Your task to perform on an android device: Clear the shopping cart on costco.com. Search for logitech g pro on costco.com, select the first entry, add it to the cart, then select checkout. Image 0: 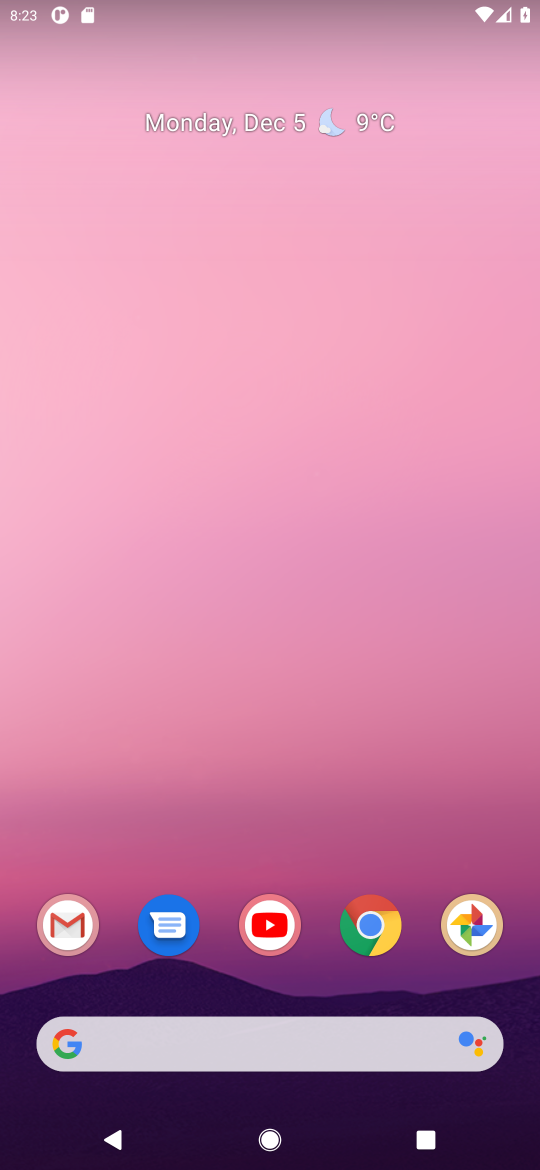
Step 0: click (368, 932)
Your task to perform on an android device: Clear the shopping cart on costco.com. Search for logitech g pro on costco.com, select the first entry, add it to the cart, then select checkout. Image 1: 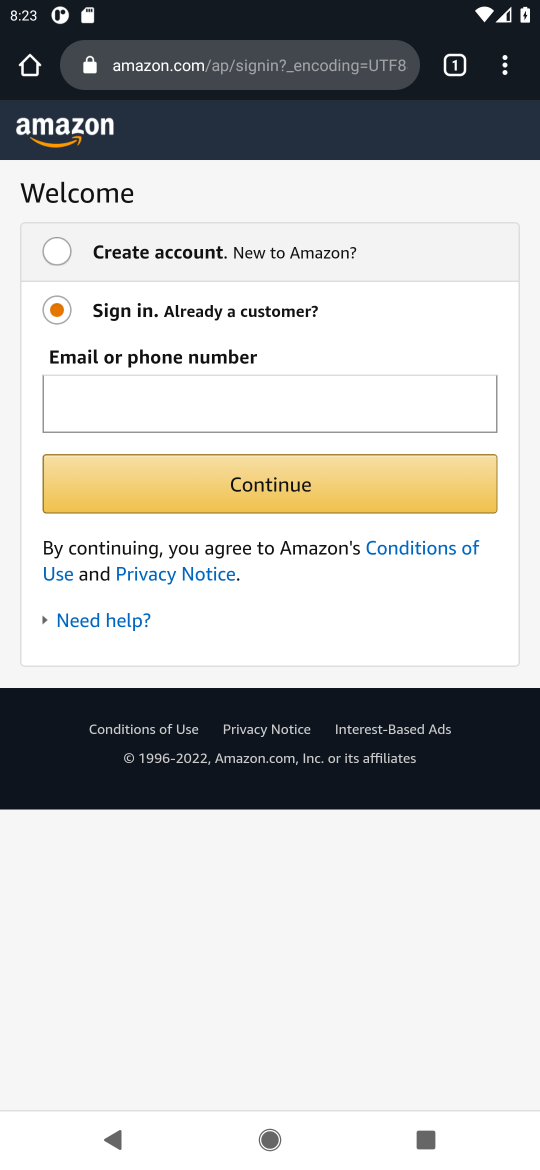
Step 1: click (207, 54)
Your task to perform on an android device: Clear the shopping cart on costco.com. Search for logitech g pro on costco.com, select the first entry, add it to the cart, then select checkout. Image 2: 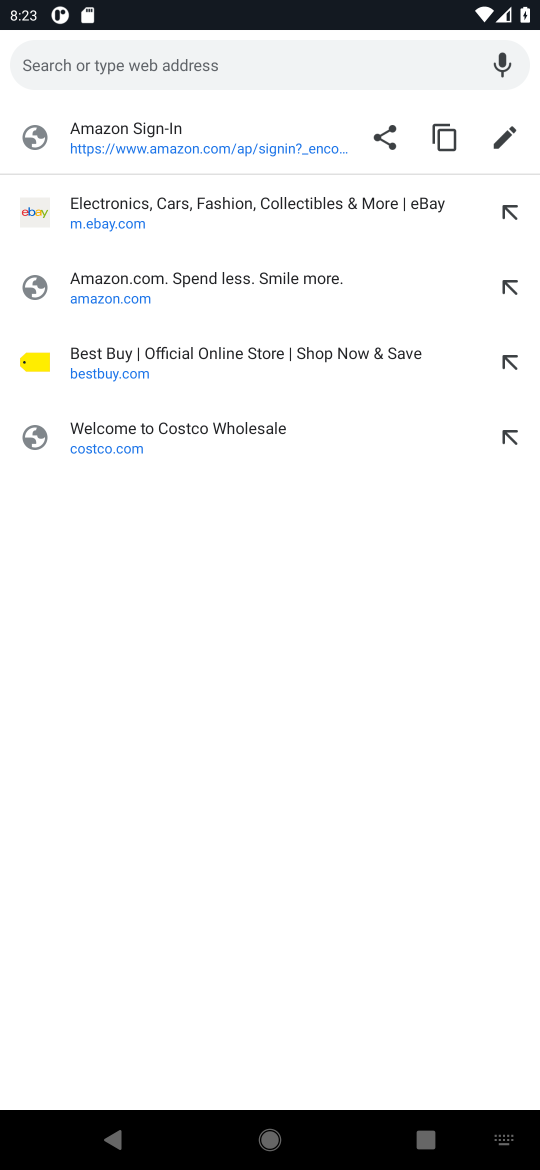
Step 2: click (88, 440)
Your task to perform on an android device: Clear the shopping cart on costco.com. Search for logitech g pro on costco.com, select the first entry, add it to the cart, then select checkout. Image 3: 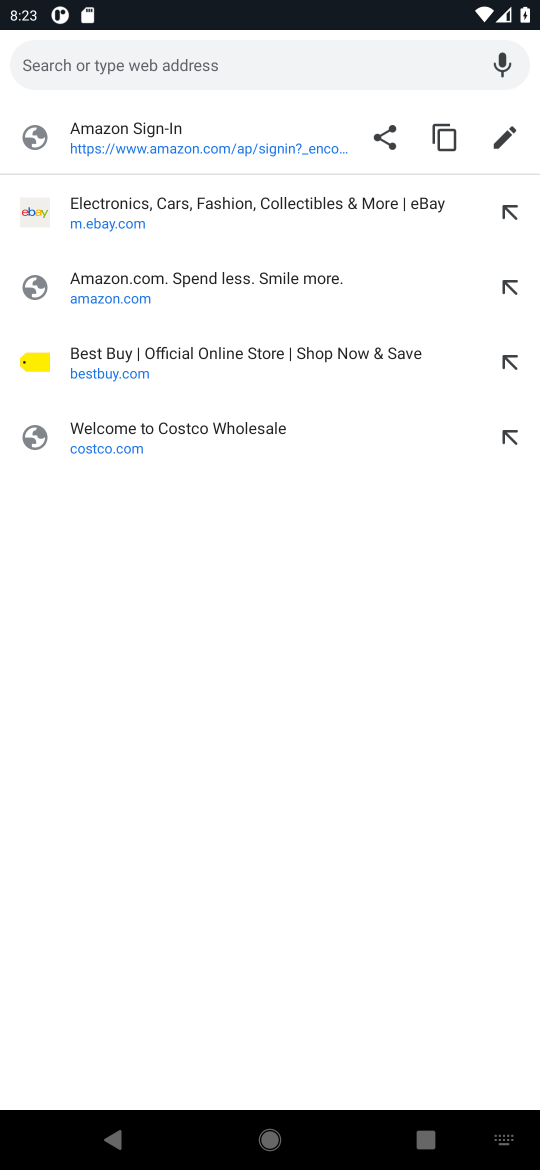
Step 3: click (93, 440)
Your task to perform on an android device: Clear the shopping cart on costco.com. Search for logitech g pro on costco.com, select the first entry, add it to the cart, then select checkout. Image 4: 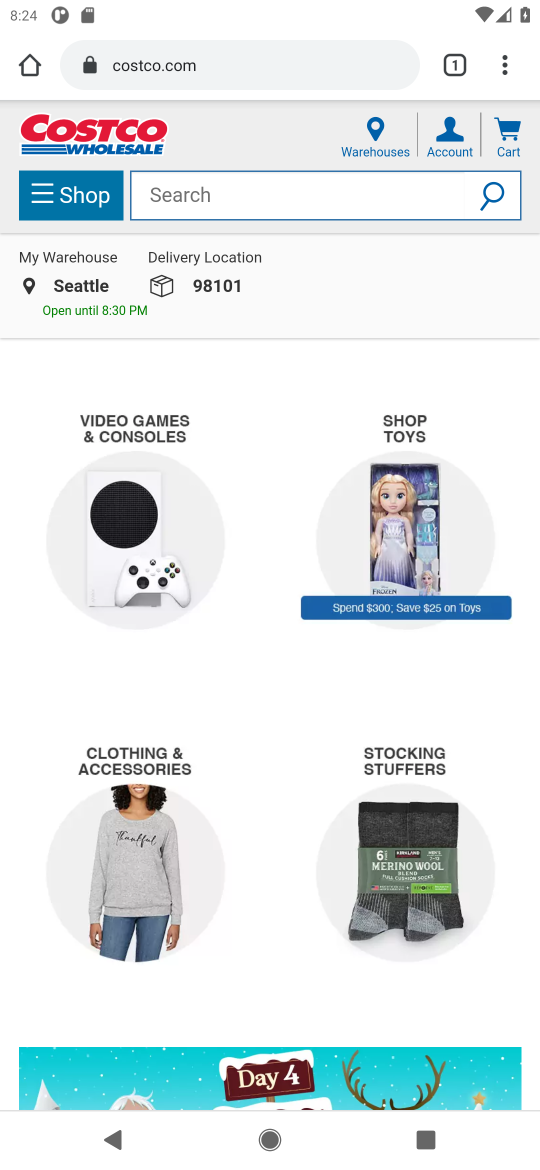
Step 4: click (503, 127)
Your task to perform on an android device: Clear the shopping cart on costco.com. Search for logitech g pro on costco.com, select the first entry, add it to the cart, then select checkout. Image 5: 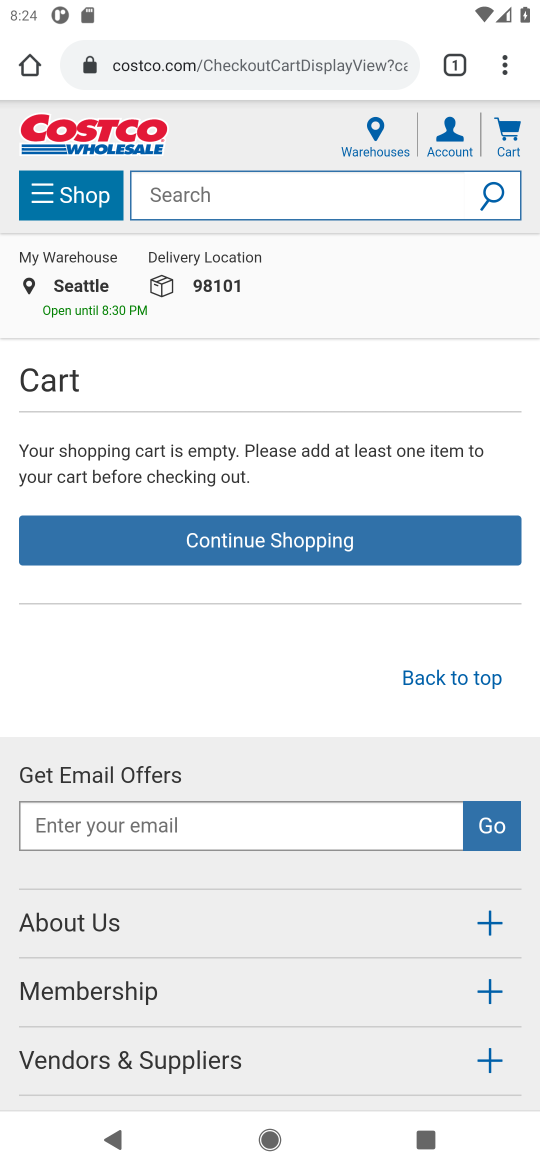
Step 5: click (213, 203)
Your task to perform on an android device: Clear the shopping cart on costco.com. Search for logitech g pro on costco.com, select the first entry, add it to the cart, then select checkout. Image 6: 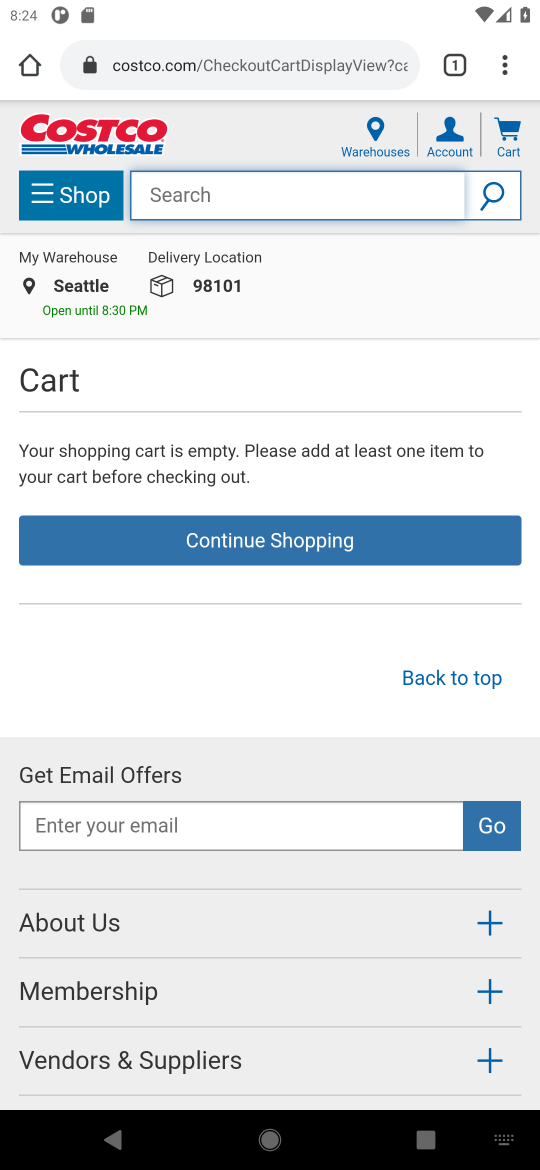
Step 6: type "logitech g pro"
Your task to perform on an android device: Clear the shopping cart on costco.com. Search for logitech g pro on costco.com, select the first entry, add it to the cart, then select checkout. Image 7: 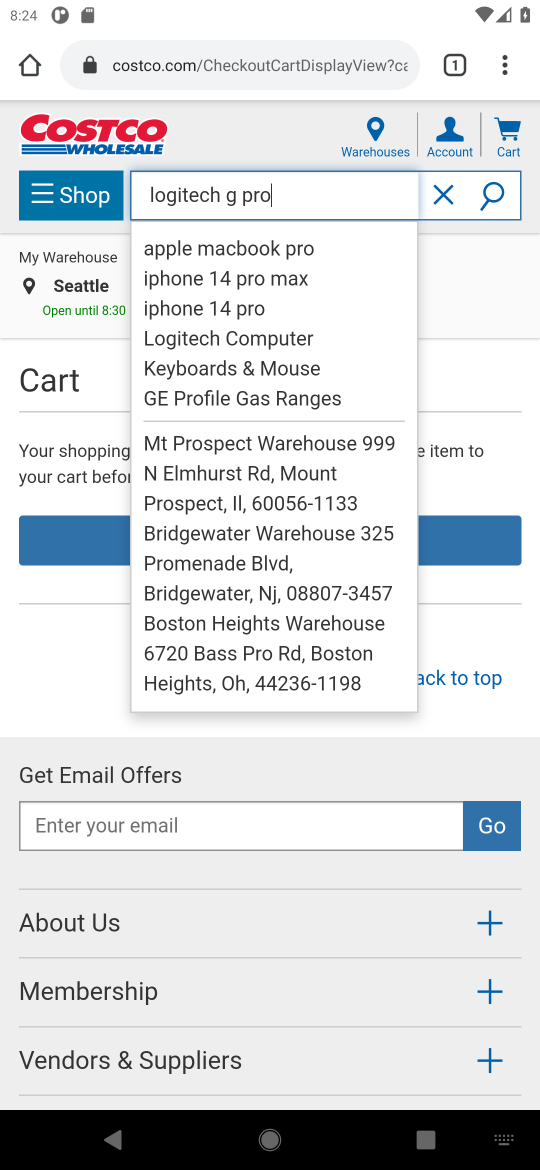
Step 7: click (488, 197)
Your task to perform on an android device: Clear the shopping cart on costco.com. Search for logitech g pro on costco.com, select the first entry, add it to the cart, then select checkout. Image 8: 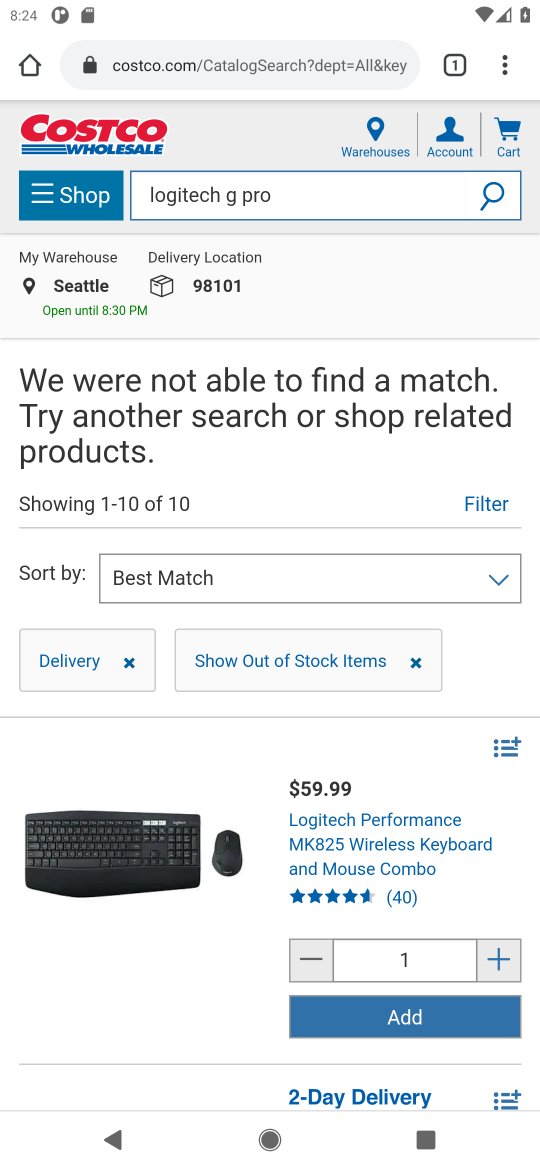
Step 8: task complete